Your task to perform on an android device: turn on improve location accuracy Image 0: 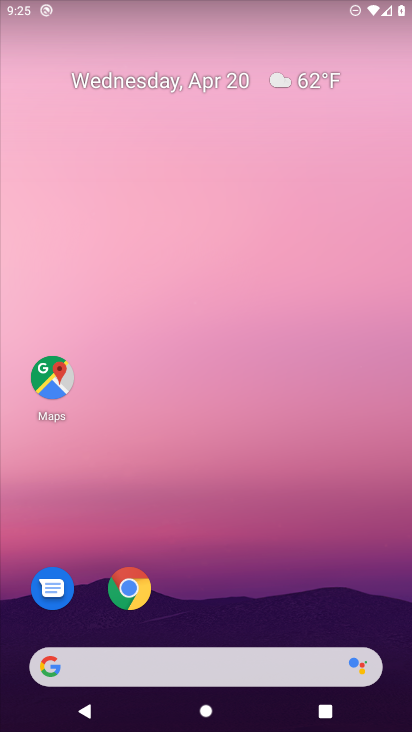
Step 0: drag from (211, 616) to (241, 140)
Your task to perform on an android device: turn on improve location accuracy Image 1: 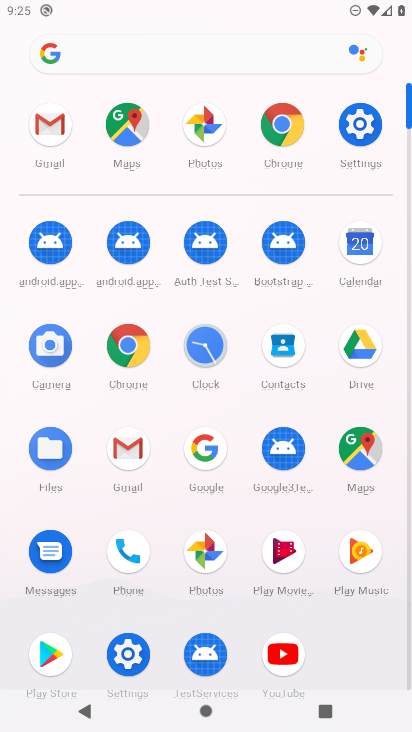
Step 1: click (131, 646)
Your task to perform on an android device: turn on improve location accuracy Image 2: 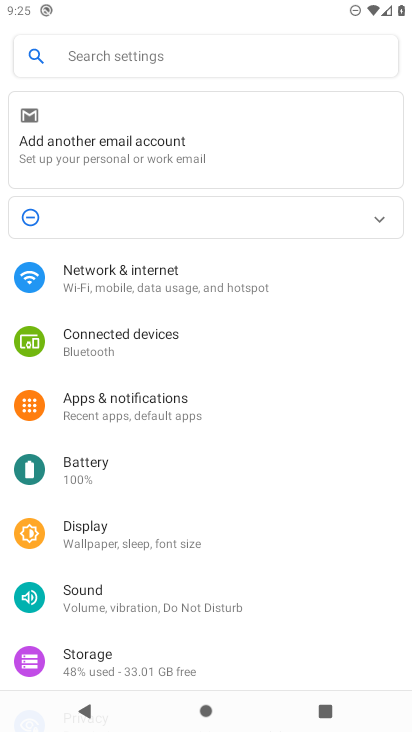
Step 2: drag from (168, 628) to (207, 166)
Your task to perform on an android device: turn on improve location accuracy Image 3: 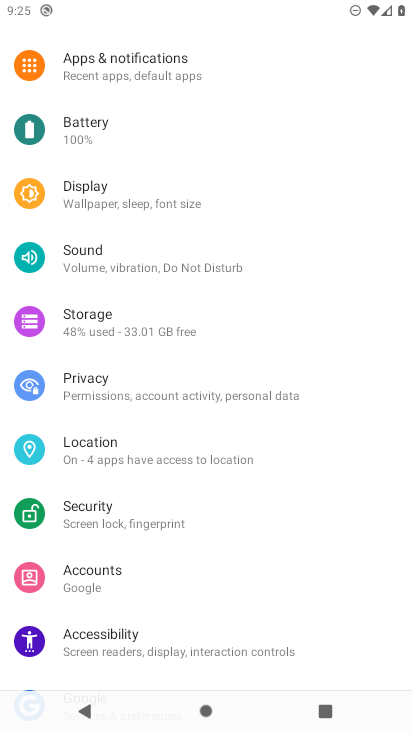
Step 3: click (127, 444)
Your task to perform on an android device: turn on improve location accuracy Image 4: 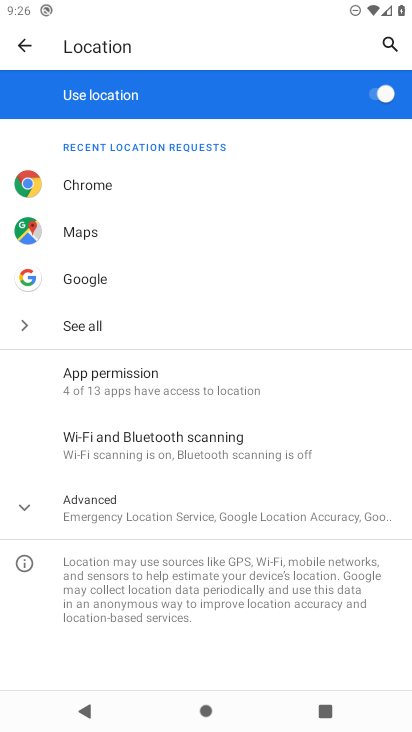
Step 4: click (36, 504)
Your task to perform on an android device: turn on improve location accuracy Image 5: 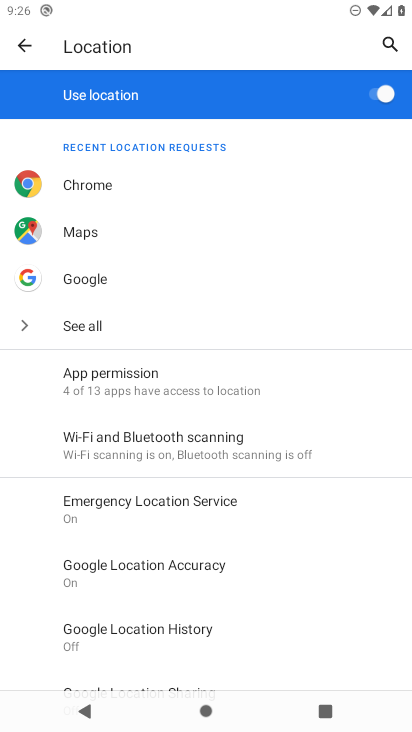
Step 5: click (172, 574)
Your task to perform on an android device: turn on improve location accuracy Image 6: 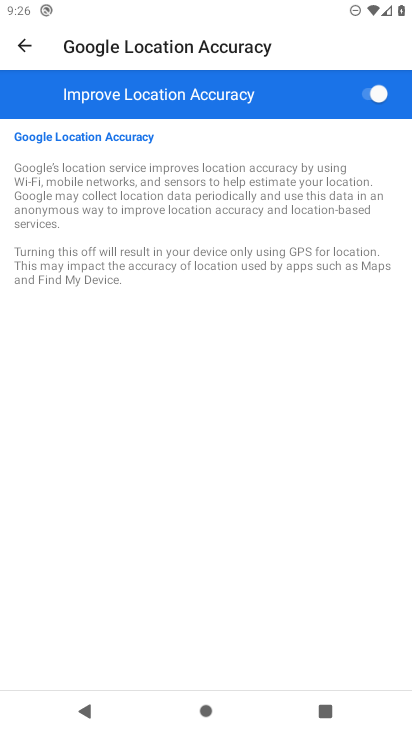
Step 6: task complete